Your task to perform on an android device: toggle pop-ups in chrome Image 0: 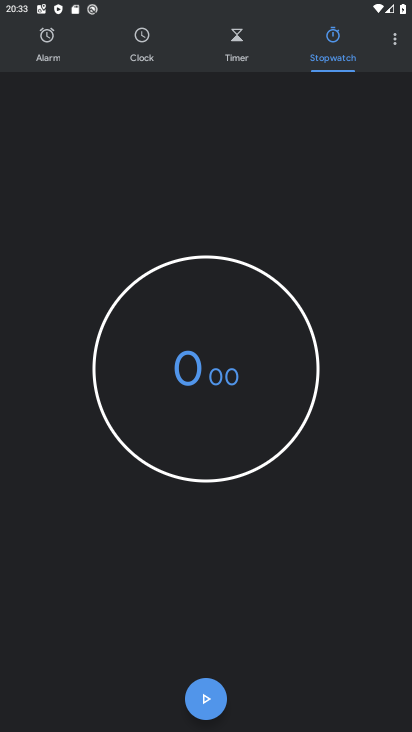
Step 0: press back button
Your task to perform on an android device: toggle pop-ups in chrome Image 1: 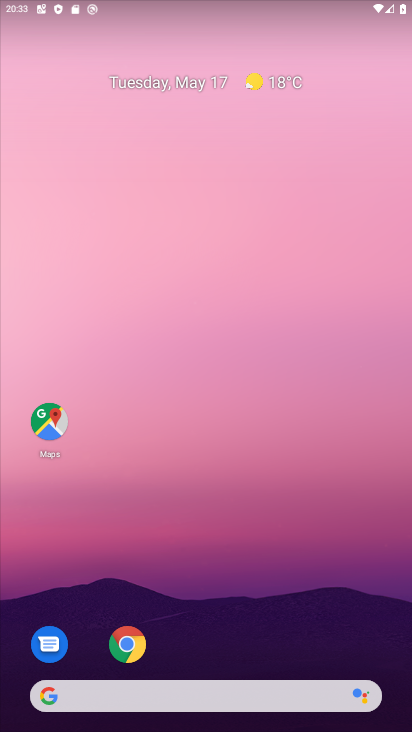
Step 1: click (124, 637)
Your task to perform on an android device: toggle pop-ups in chrome Image 2: 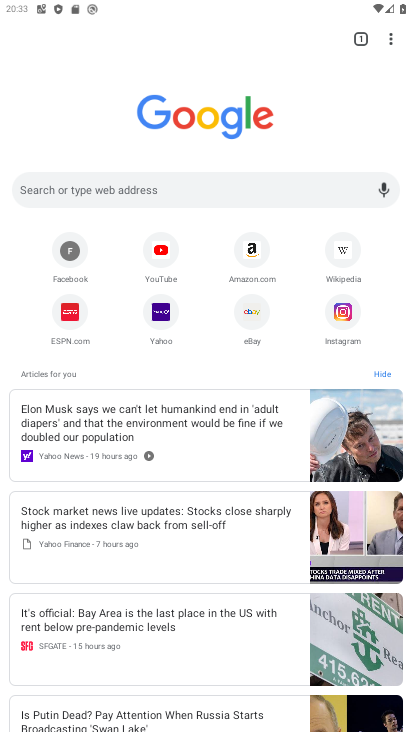
Step 2: drag from (390, 36) to (259, 328)
Your task to perform on an android device: toggle pop-ups in chrome Image 3: 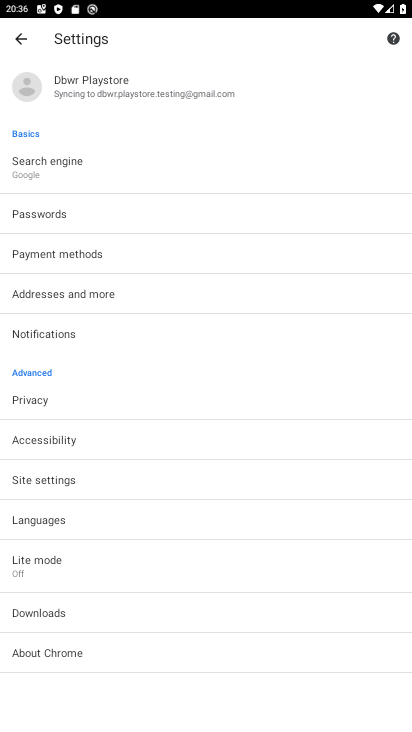
Step 3: click (63, 485)
Your task to perform on an android device: toggle pop-ups in chrome Image 4: 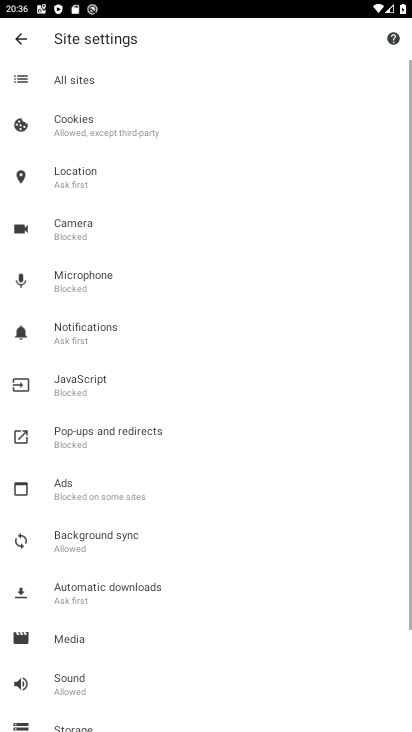
Step 4: click (95, 433)
Your task to perform on an android device: toggle pop-ups in chrome Image 5: 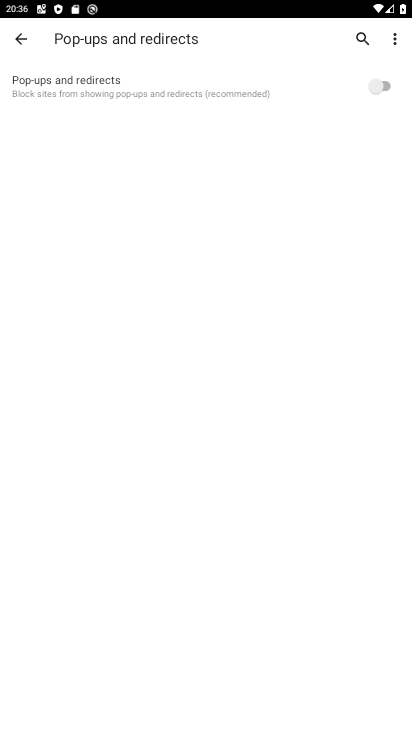
Step 5: click (374, 83)
Your task to perform on an android device: toggle pop-ups in chrome Image 6: 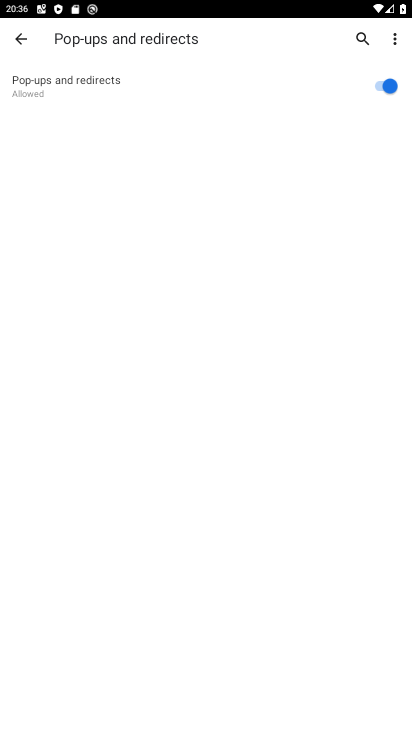
Step 6: task complete